Your task to perform on an android device: see tabs open on other devices in the chrome app Image 0: 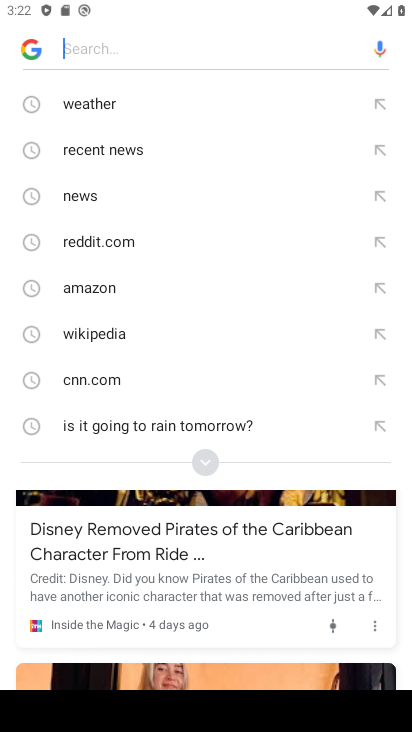
Step 0: press home button
Your task to perform on an android device: see tabs open on other devices in the chrome app Image 1: 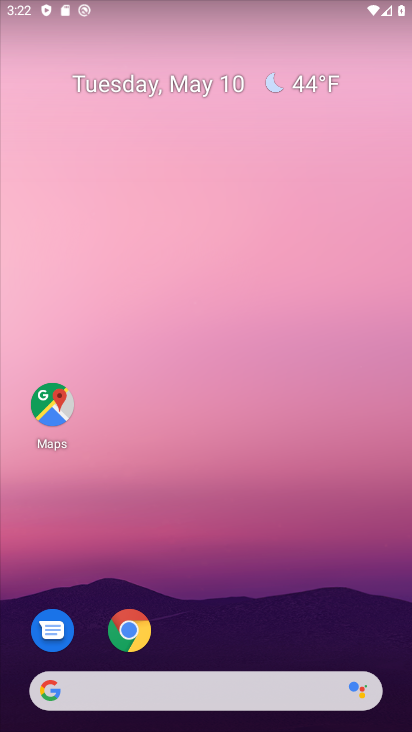
Step 1: click (127, 637)
Your task to perform on an android device: see tabs open on other devices in the chrome app Image 2: 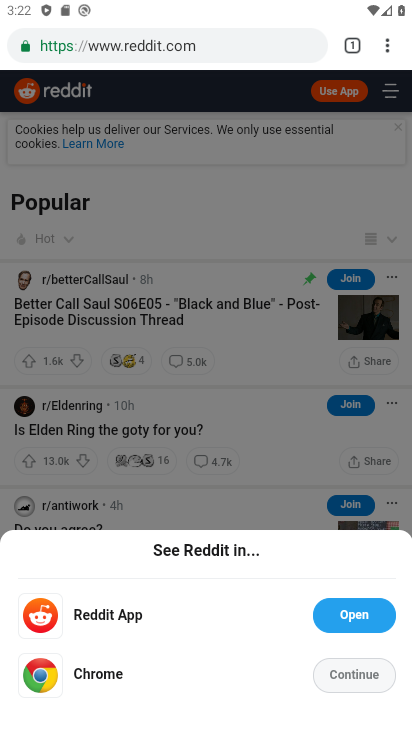
Step 2: click (381, 46)
Your task to perform on an android device: see tabs open on other devices in the chrome app Image 3: 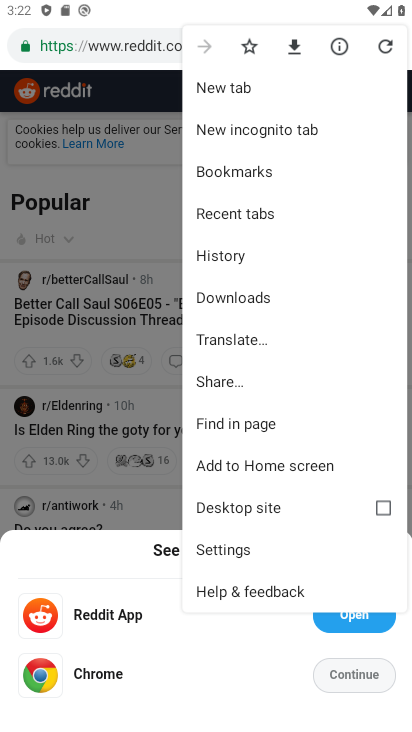
Step 3: click (240, 207)
Your task to perform on an android device: see tabs open on other devices in the chrome app Image 4: 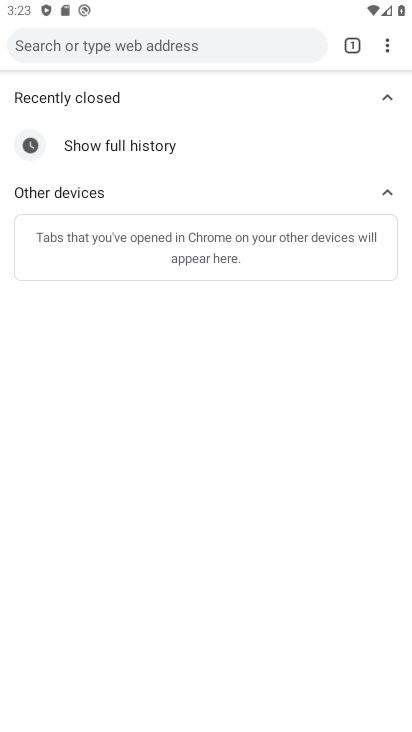
Step 4: task complete